Your task to perform on an android device: visit the assistant section in the google photos Image 0: 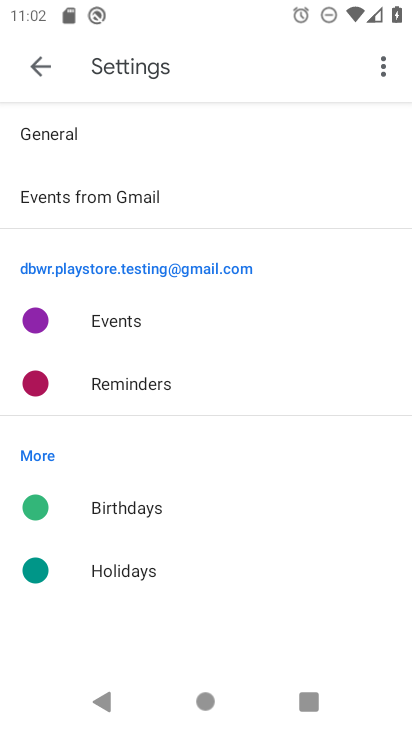
Step 0: press home button
Your task to perform on an android device: visit the assistant section in the google photos Image 1: 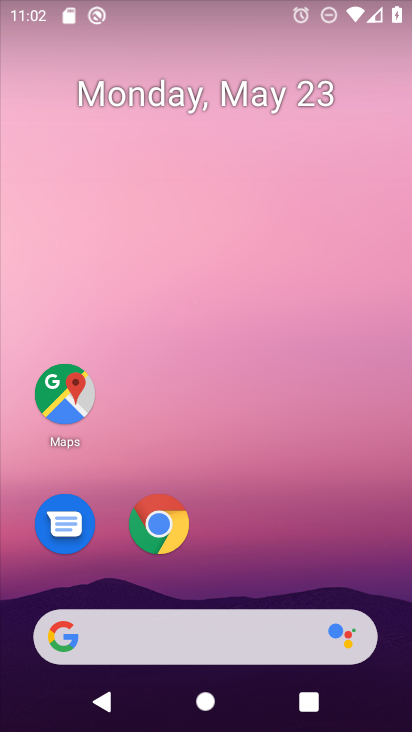
Step 1: drag from (242, 577) to (254, 146)
Your task to perform on an android device: visit the assistant section in the google photos Image 2: 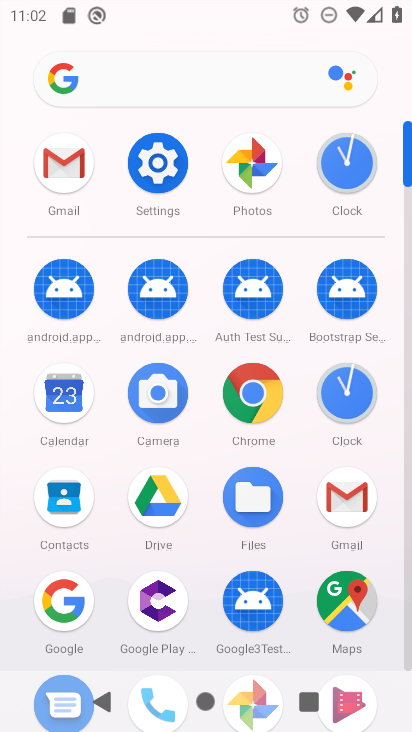
Step 2: click (256, 160)
Your task to perform on an android device: visit the assistant section in the google photos Image 3: 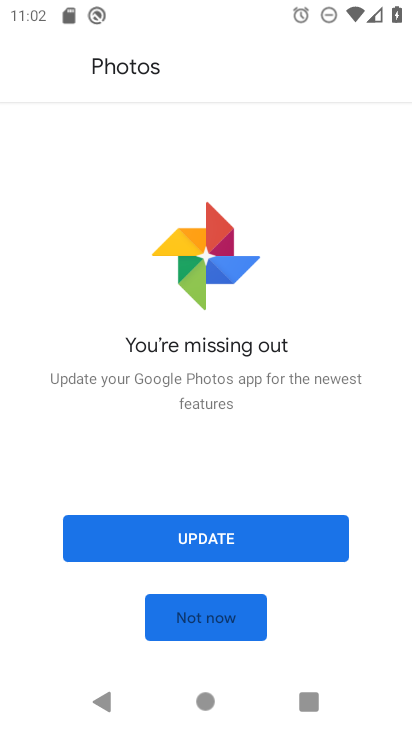
Step 3: click (236, 609)
Your task to perform on an android device: visit the assistant section in the google photos Image 4: 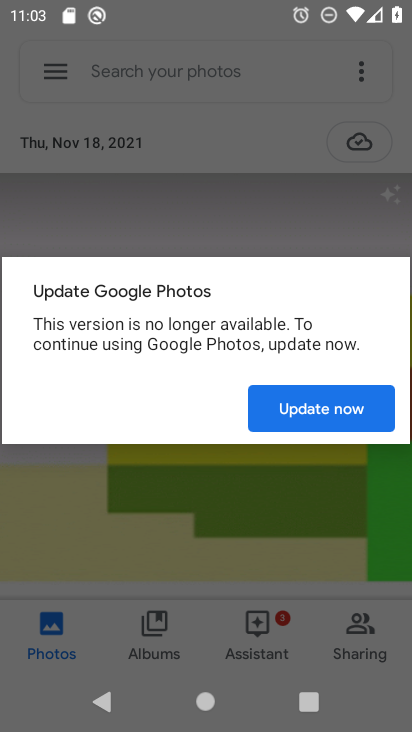
Step 4: click (291, 418)
Your task to perform on an android device: visit the assistant section in the google photos Image 5: 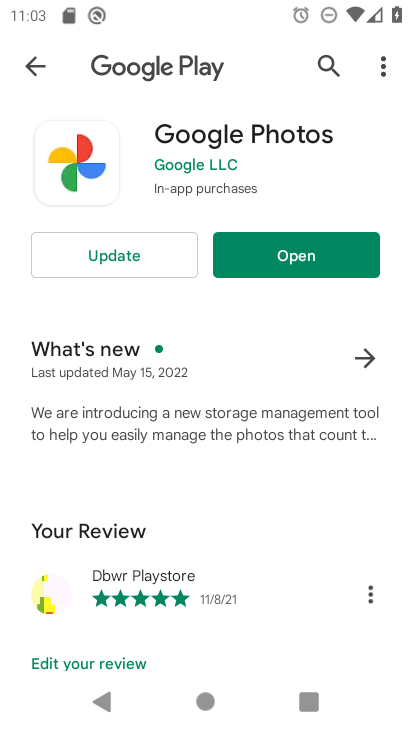
Step 5: click (284, 250)
Your task to perform on an android device: visit the assistant section in the google photos Image 6: 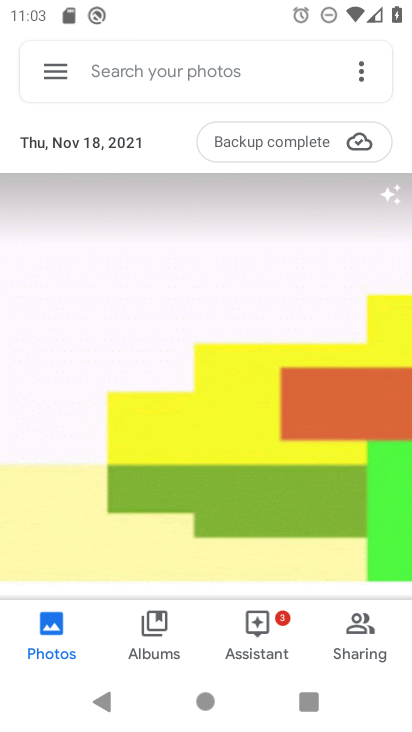
Step 6: click (271, 633)
Your task to perform on an android device: visit the assistant section in the google photos Image 7: 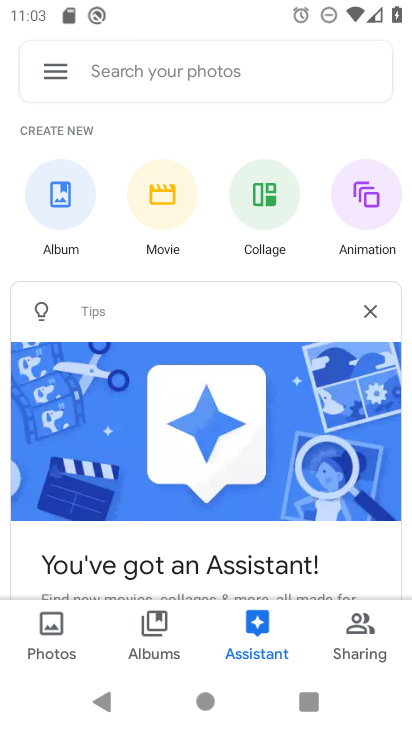
Step 7: task complete